Your task to perform on an android device: toggle javascript in the chrome app Image 0: 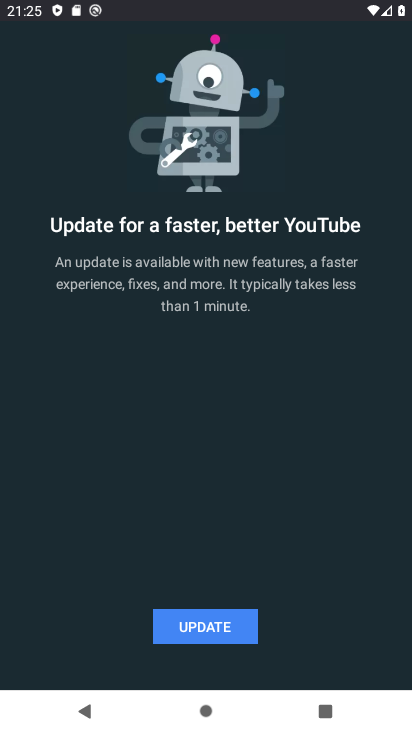
Step 0: press home button
Your task to perform on an android device: toggle javascript in the chrome app Image 1: 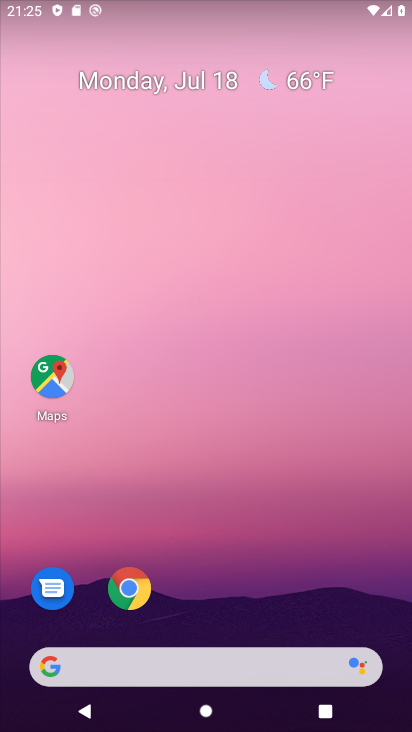
Step 1: click (129, 589)
Your task to perform on an android device: toggle javascript in the chrome app Image 2: 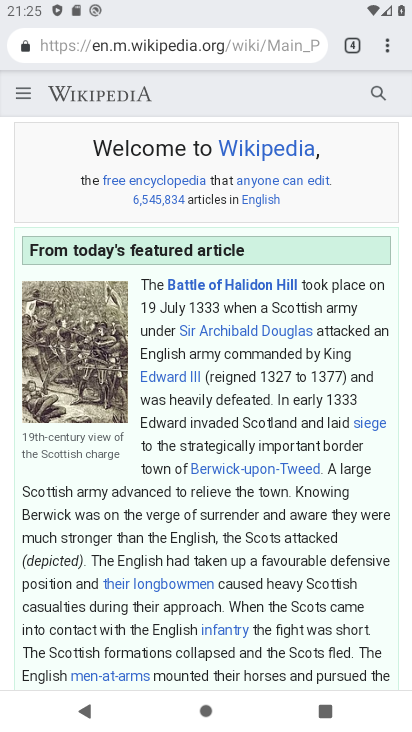
Step 2: drag from (384, 42) to (251, 556)
Your task to perform on an android device: toggle javascript in the chrome app Image 3: 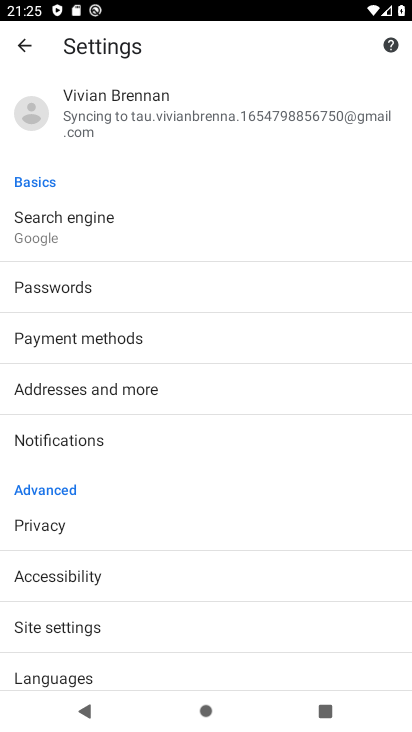
Step 3: click (78, 632)
Your task to perform on an android device: toggle javascript in the chrome app Image 4: 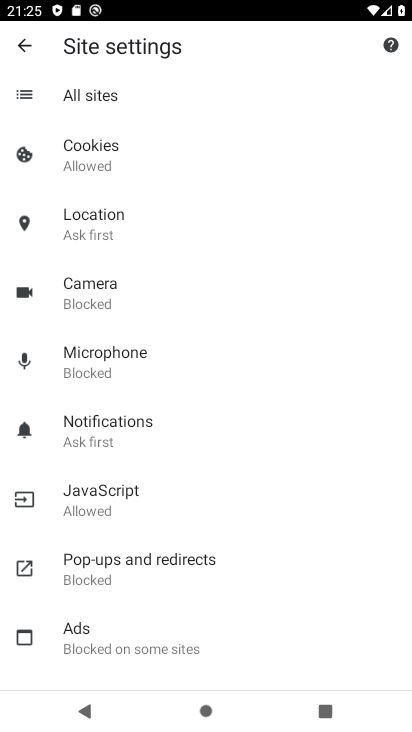
Step 4: click (109, 480)
Your task to perform on an android device: toggle javascript in the chrome app Image 5: 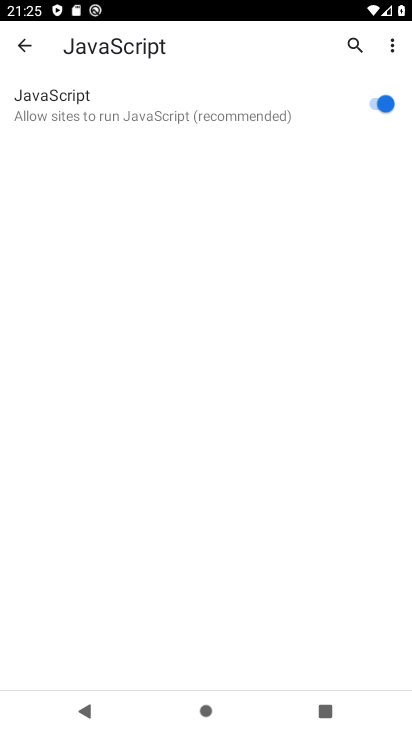
Step 5: click (380, 102)
Your task to perform on an android device: toggle javascript in the chrome app Image 6: 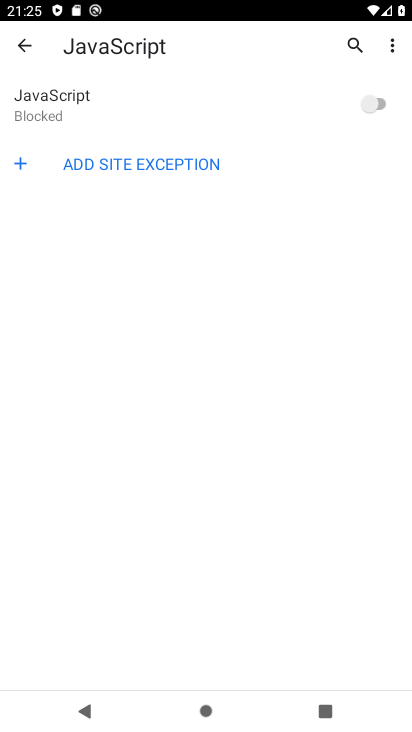
Step 6: task complete